Your task to perform on an android device: turn on javascript in the chrome app Image 0: 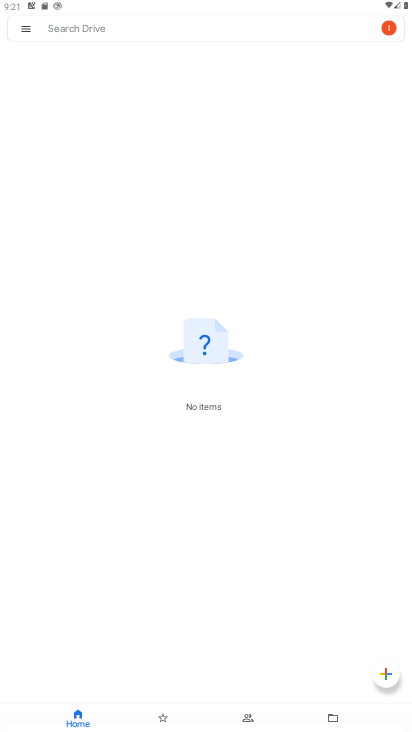
Step 0: press home button
Your task to perform on an android device: turn on javascript in the chrome app Image 1: 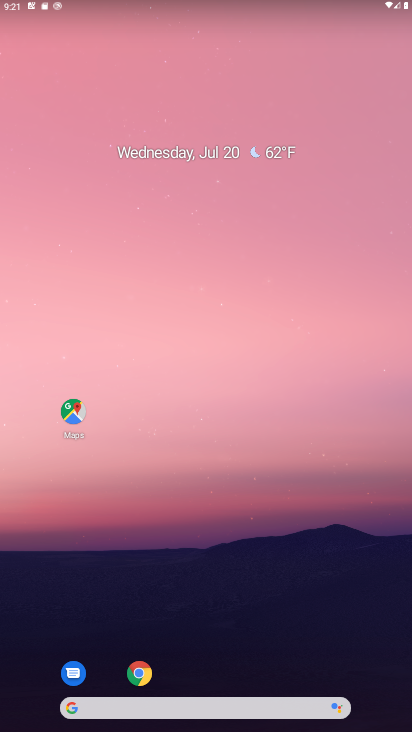
Step 1: click (134, 666)
Your task to perform on an android device: turn on javascript in the chrome app Image 2: 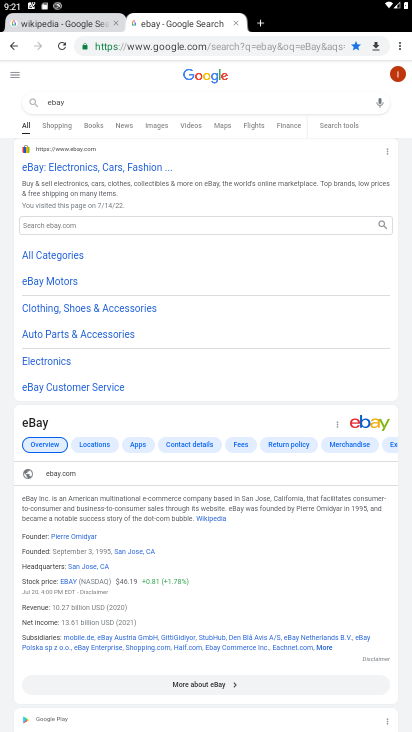
Step 2: click (401, 45)
Your task to perform on an android device: turn on javascript in the chrome app Image 3: 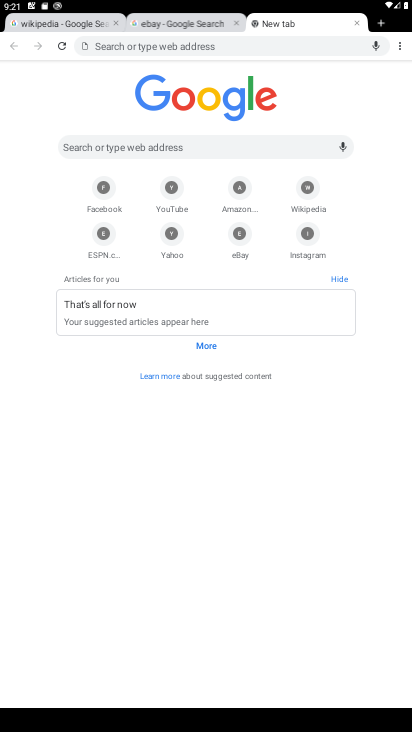
Step 3: click (401, 45)
Your task to perform on an android device: turn on javascript in the chrome app Image 4: 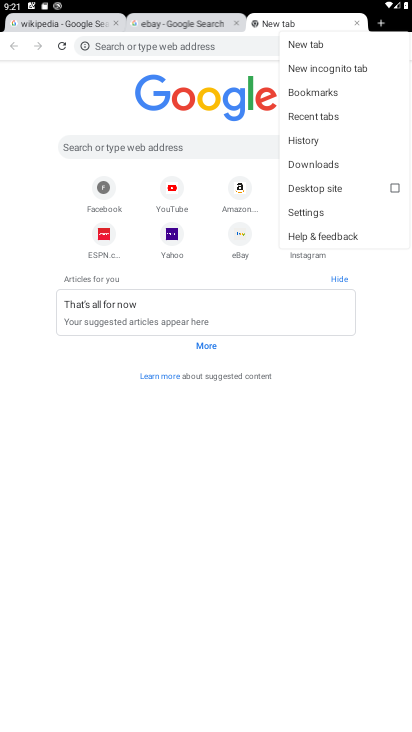
Step 4: click (307, 204)
Your task to perform on an android device: turn on javascript in the chrome app Image 5: 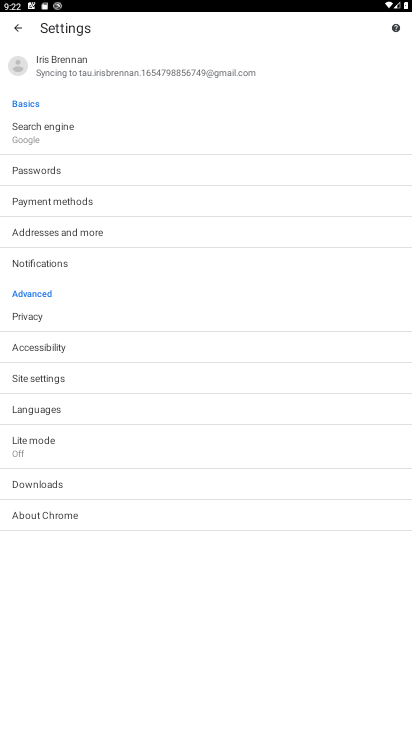
Step 5: click (57, 374)
Your task to perform on an android device: turn on javascript in the chrome app Image 6: 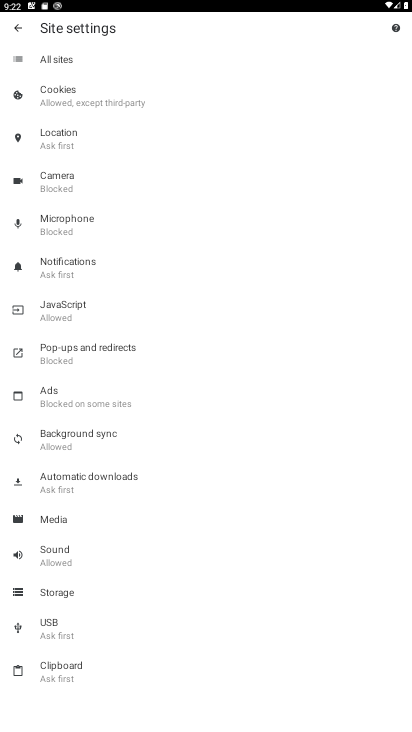
Step 6: click (56, 309)
Your task to perform on an android device: turn on javascript in the chrome app Image 7: 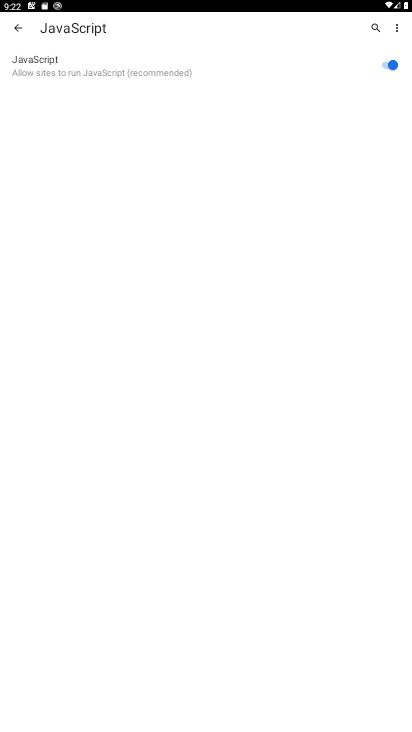
Step 7: task complete